Your task to perform on an android device: turn on airplane mode Image 0: 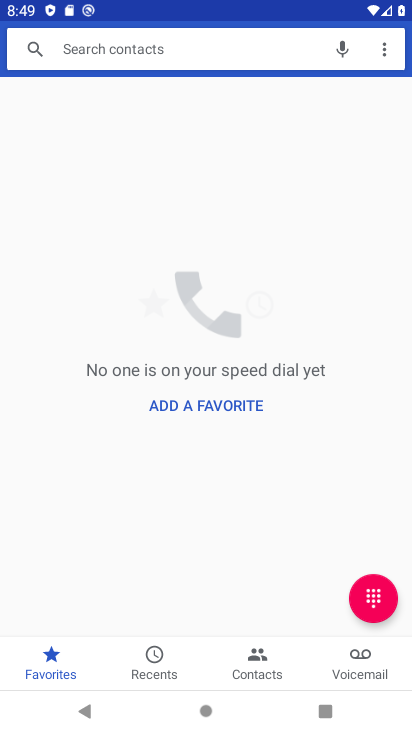
Step 0: press home button
Your task to perform on an android device: turn on airplane mode Image 1: 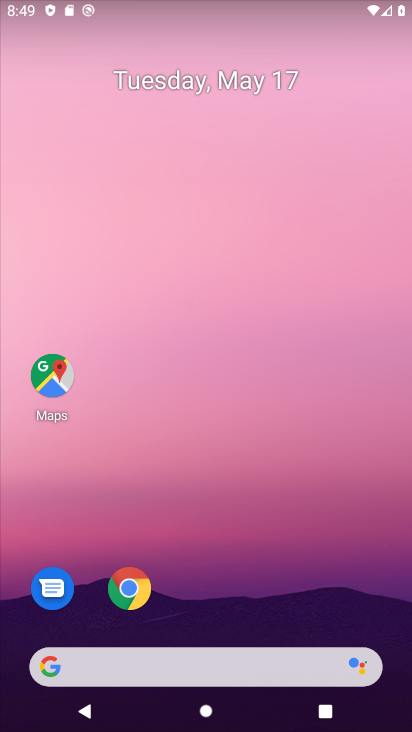
Step 1: drag from (391, 694) to (336, 67)
Your task to perform on an android device: turn on airplane mode Image 2: 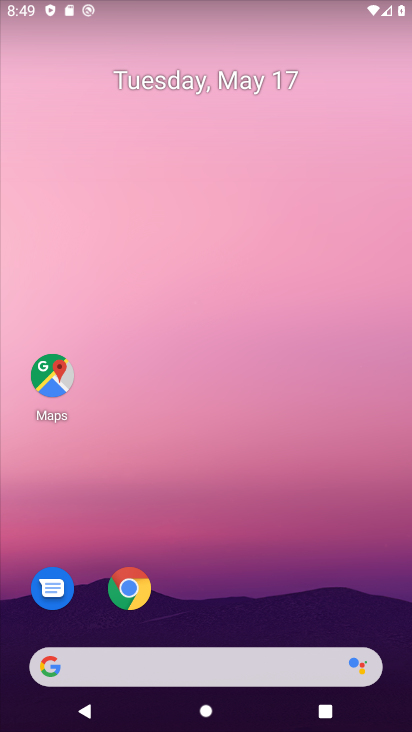
Step 2: drag from (388, 712) to (340, 66)
Your task to perform on an android device: turn on airplane mode Image 3: 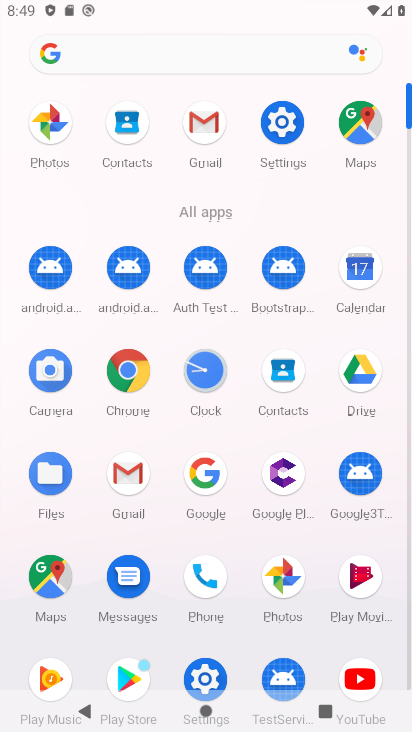
Step 3: click (274, 124)
Your task to perform on an android device: turn on airplane mode Image 4: 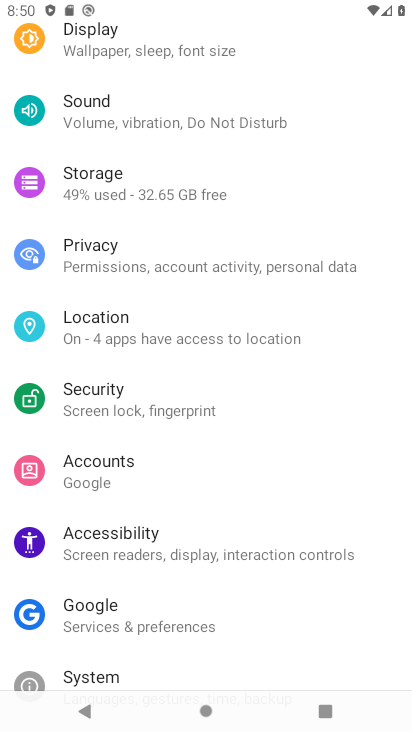
Step 4: drag from (272, 550) to (286, 349)
Your task to perform on an android device: turn on airplane mode Image 5: 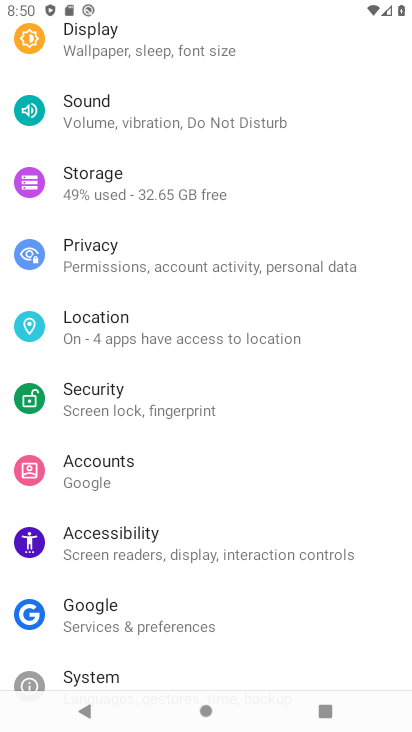
Step 5: drag from (377, 358) to (372, 615)
Your task to perform on an android device: turn on airplane mode Image 6: 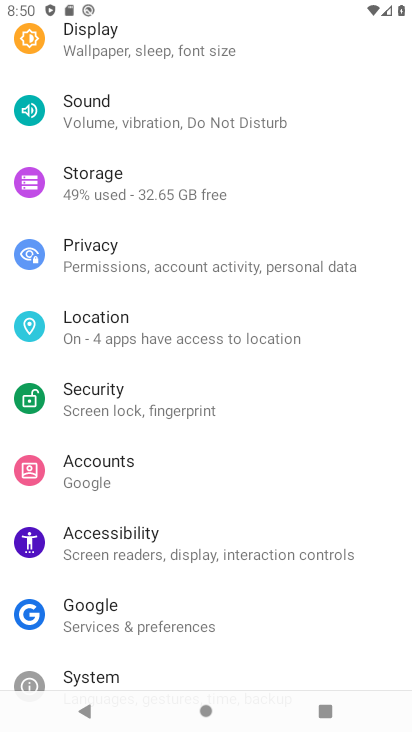
Step 6: drag from (333, 53) to (360, 593)
Your task to perform on an android device: turn on airplane mode Image 7: 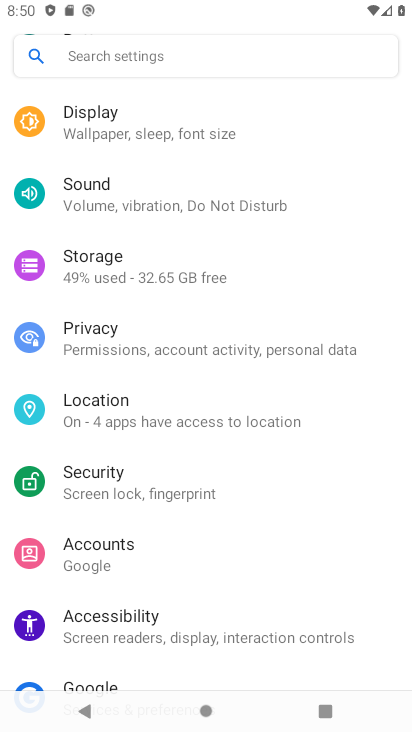
Step 7: click (358, 117)
Your task to perform on an android device: turn on airplane mode Image 8: 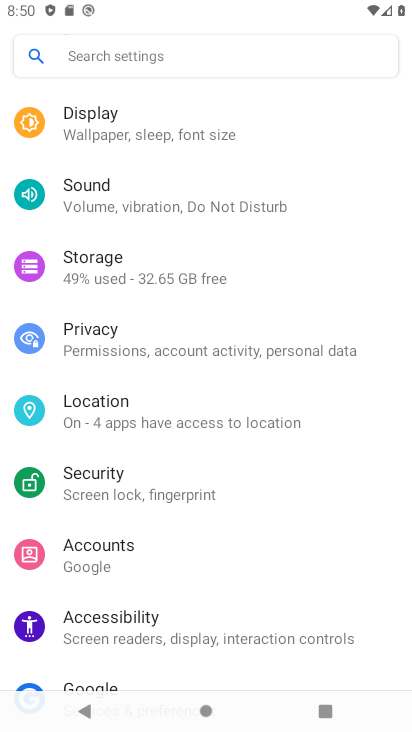
Step 8: drag from (355, 166) to (265, 640)
Your task to perform on an android device: turn on airplane mode Image 9: 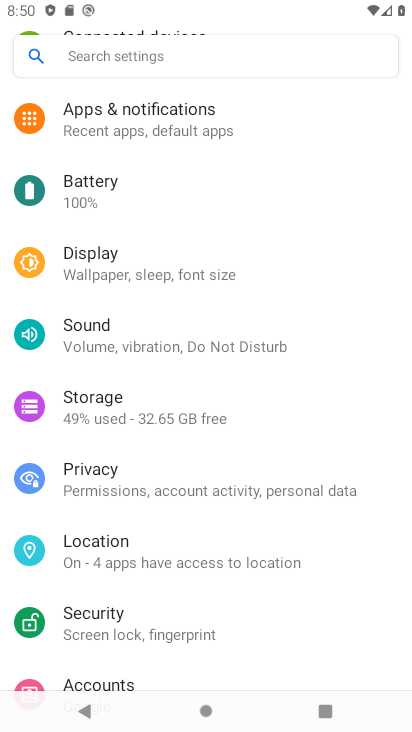
Step 9: click (304, 113)
Your task to perform on an android device: turn on airplane mode Image 10: 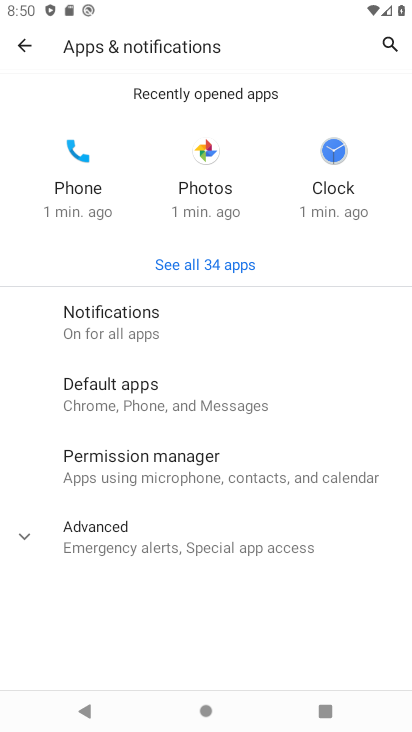
Step 10: click (19, 41)
Your task to perform on an android device: turn on airplane mode Image 11: 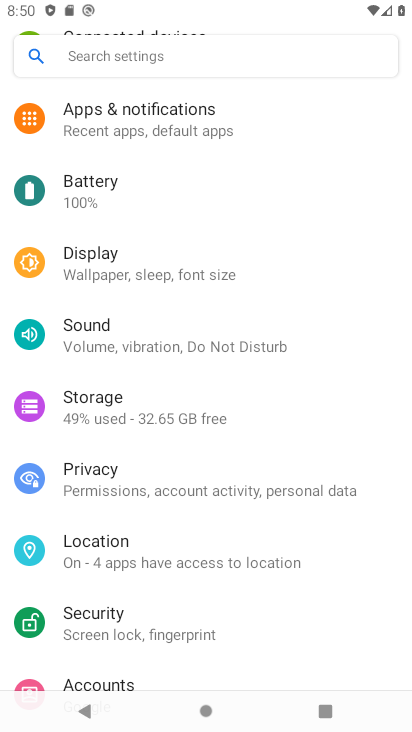
Step 11: drag from (344, 249) to (326, 512)
Your task to perform on an android device: turn on airplane mode Image 12: 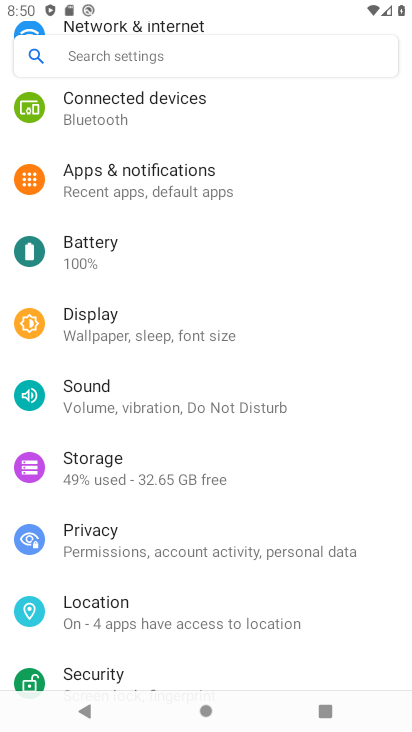
Step 12: drag from (329, 125) to (366, 659)
Your task to perform on an android device: turn on airplane mode Image 13: 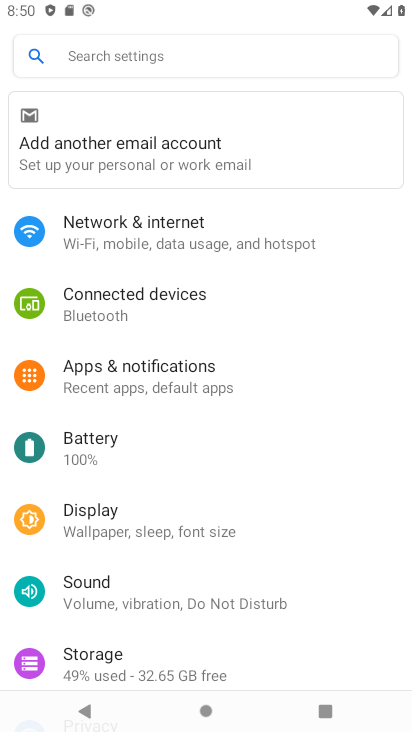
Step 13: click (140, 224)
Your task to perform on an android device: turn on airplane mode Image 14: 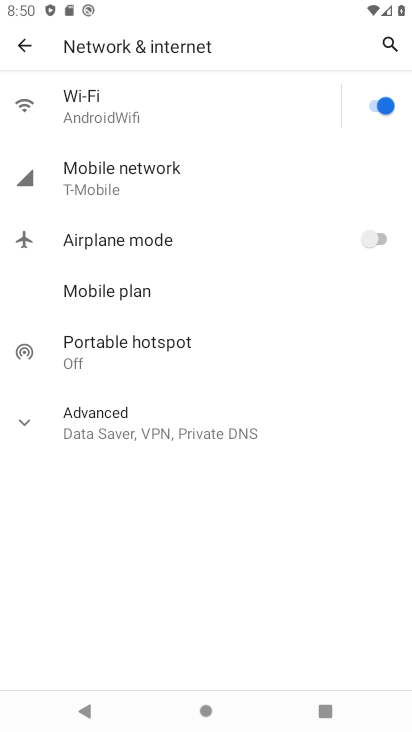
Step 14: click (381, 237)
Your task to perform on an android device: turn on airplane mode Image 15: 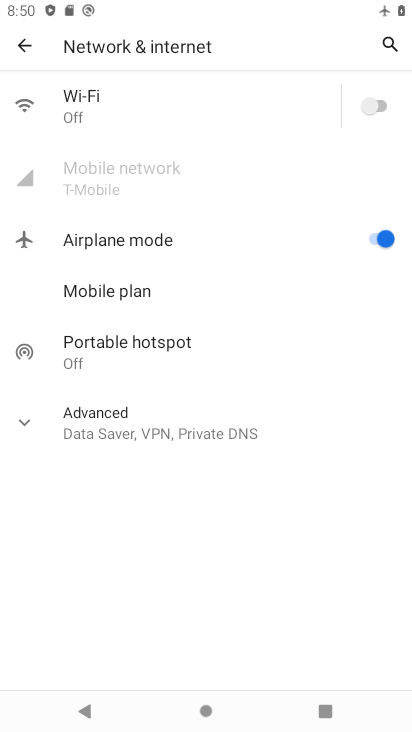
Step 15: task complete